Your task to perform on an android device: Toggle the flashlight Image 0: 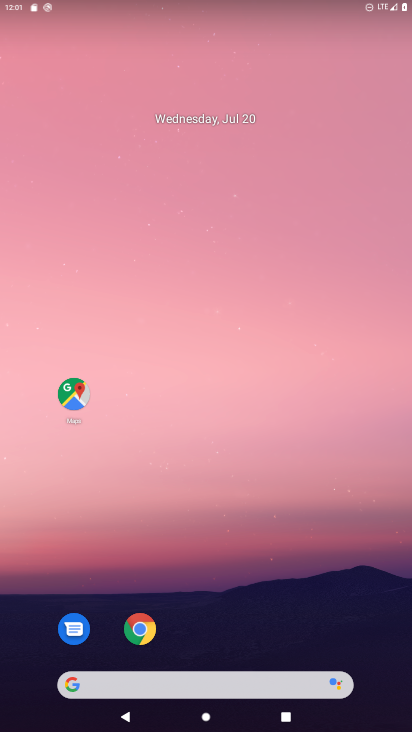
Step 0: drag from (209, 559) to (226, 160)
Your task to perform on an android device: Toggle the flashlight Image 1: 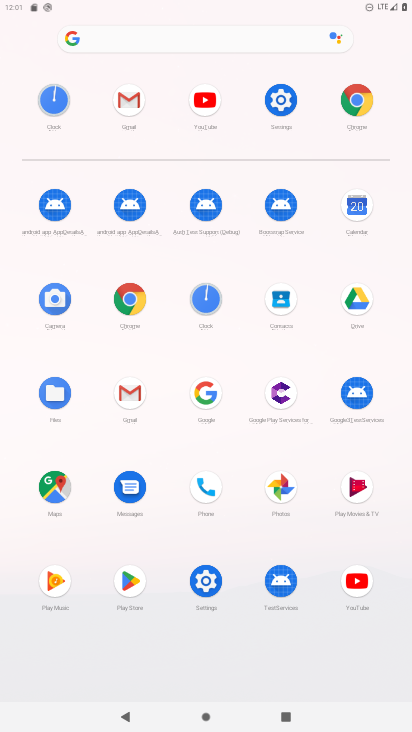
Step 1: click (286, 92)
Your task to perform on an android device: Toggle the flashlight Image 2: 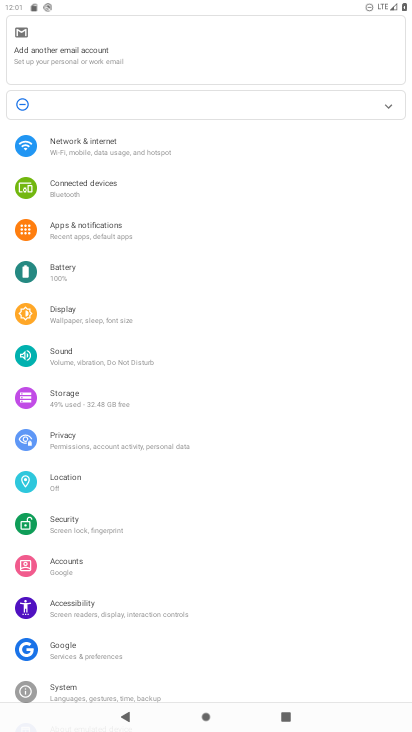
Step 2: task complete